Your task to perform on an android device: Open Google Maps Image 0: 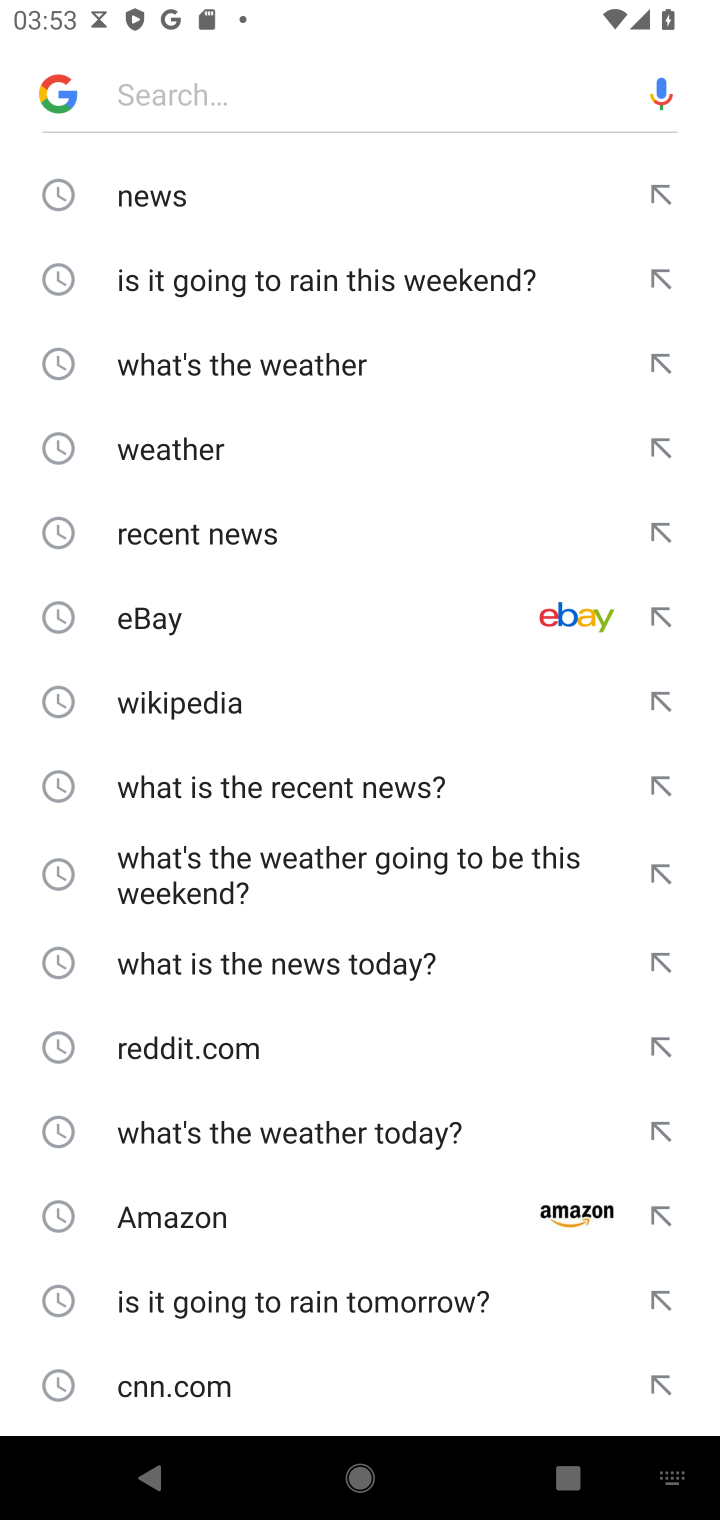
Step 0: press home button
Your task to perform on an android device: Open Google Maps Image 1: 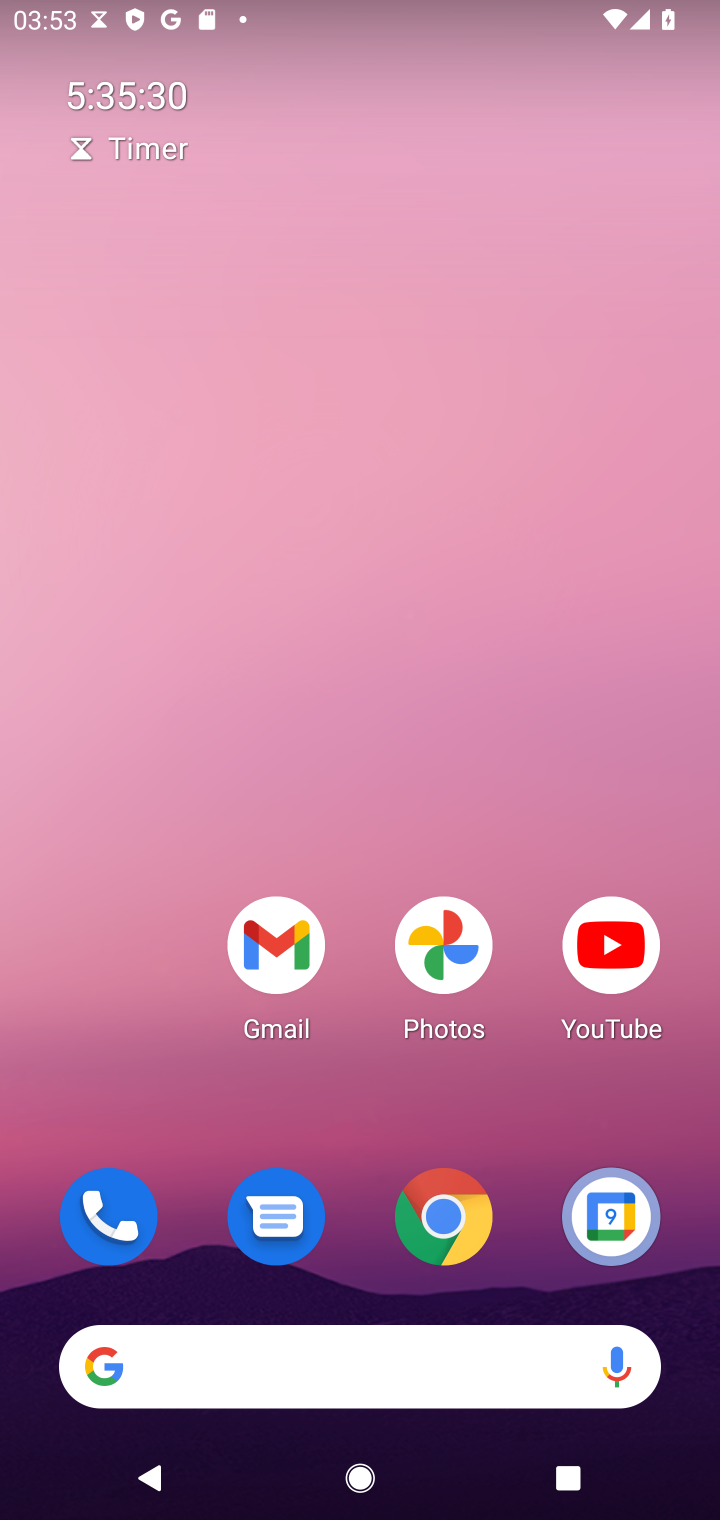
Step 1: drag from (321, 758) to (276, 59)
Your task to perform on an android device: Open Google Maps Image 2: 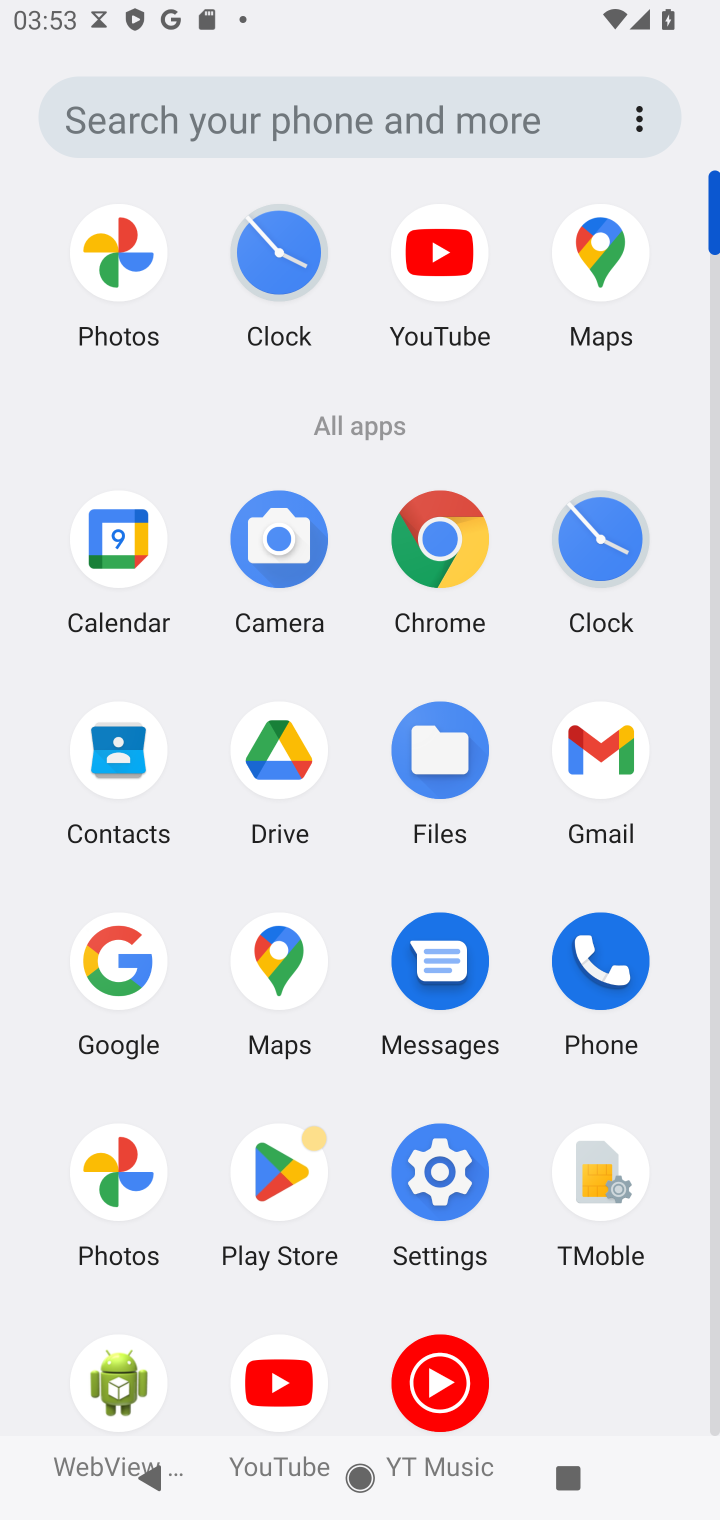
Step 2: click (283, 949)
Your task to perform on an android device: Open Google Maps Image 3: 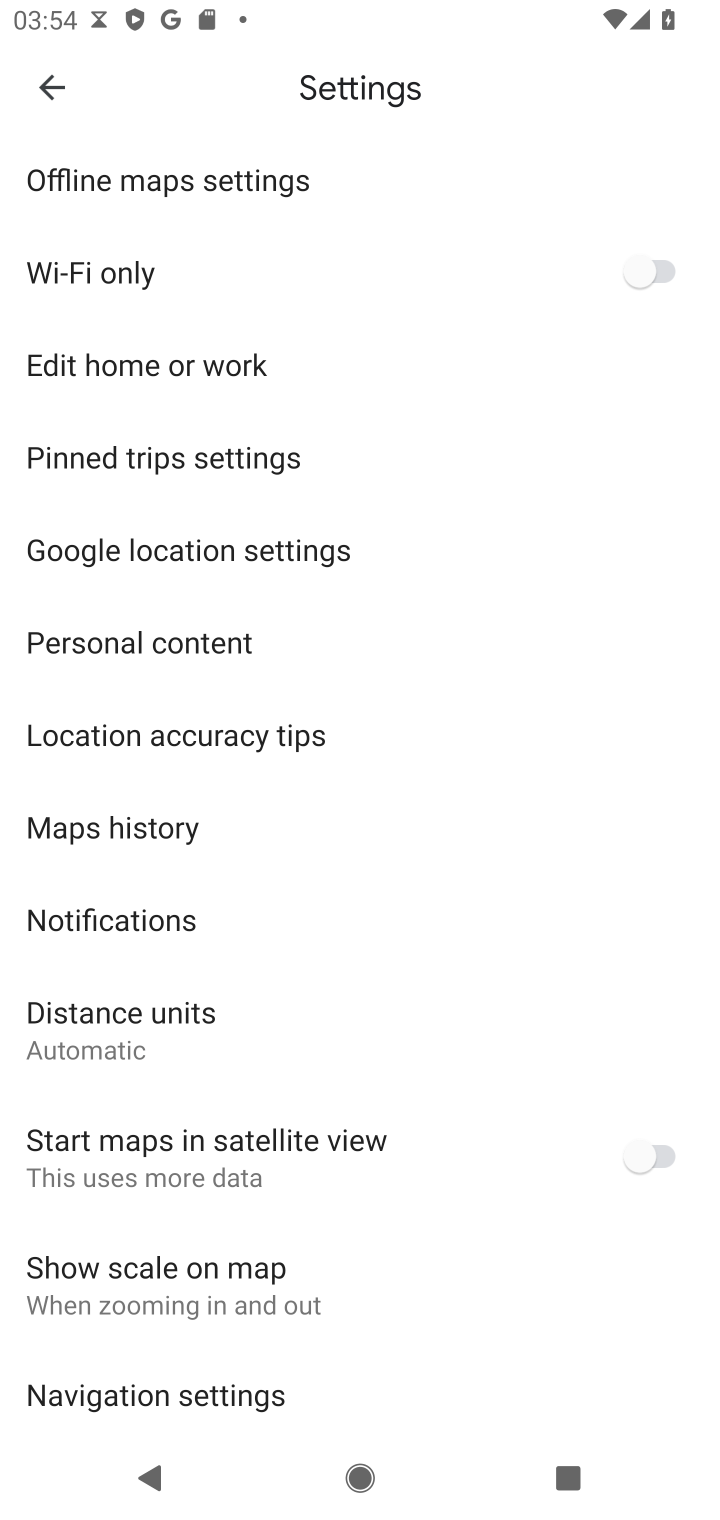
Step 3: click (61, 78)
Your task to perform on an android device: Open Google Maps Image 4: 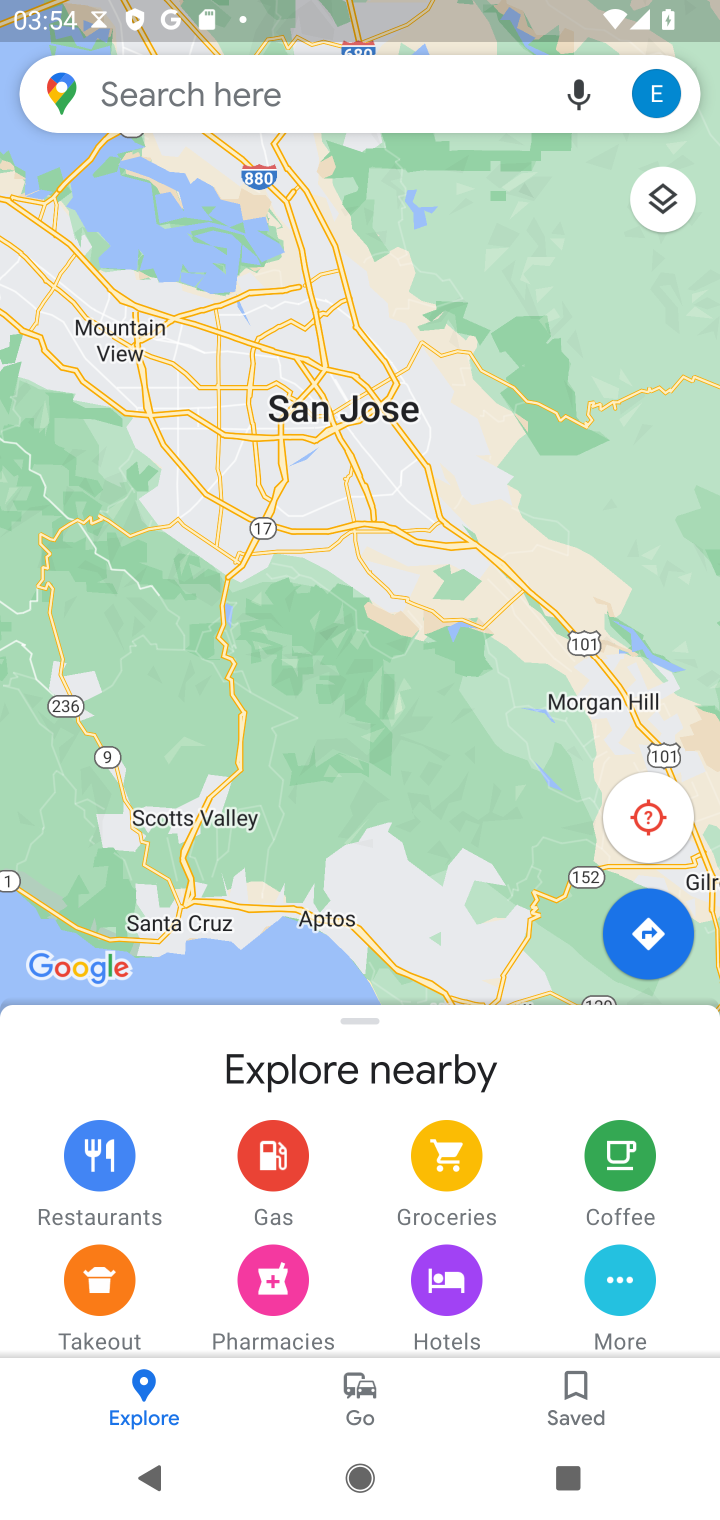
Step 4: task complete